Your task to perform on an android device: toggle notifications settings in the gmail app Image 0: 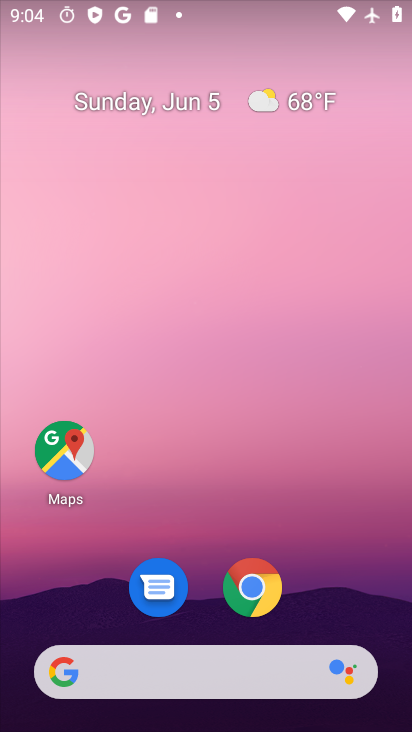
Step 0: drag from (361, 621) to (305, 94)
Your task to perform on an android device: toggle notifications settings in the gmail app Image 1: 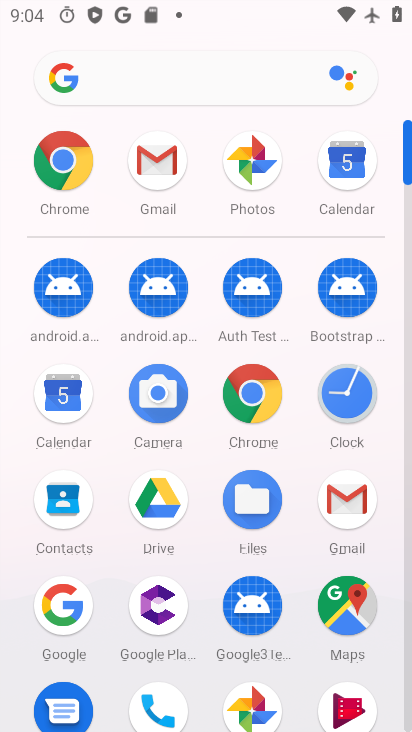
Step 1: click (350, 509)
Your task to perform on an android device: toggle notifications settings in the gmail app Image 2: 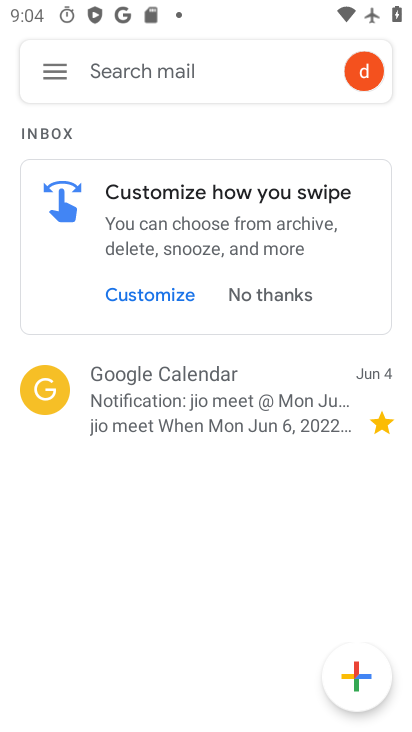
Step 2: click (57, 68)
Your task to perform on an android device: toggle notifications settings in the gmail app Image 3: 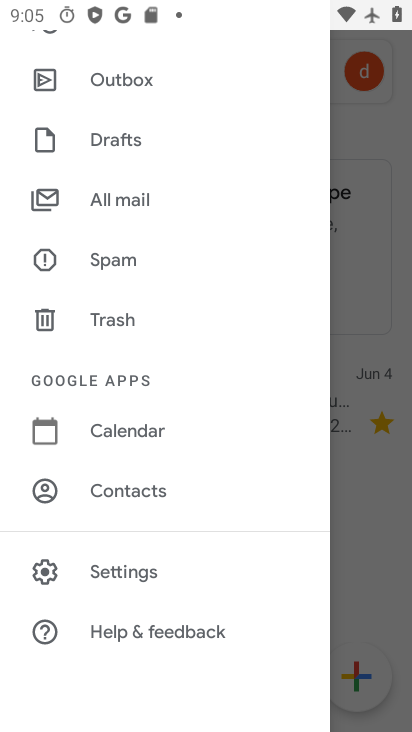
Step 3: click (129, 573)
Your task to perform on an android device: toggle notifications settings in the gmail app Image 4: 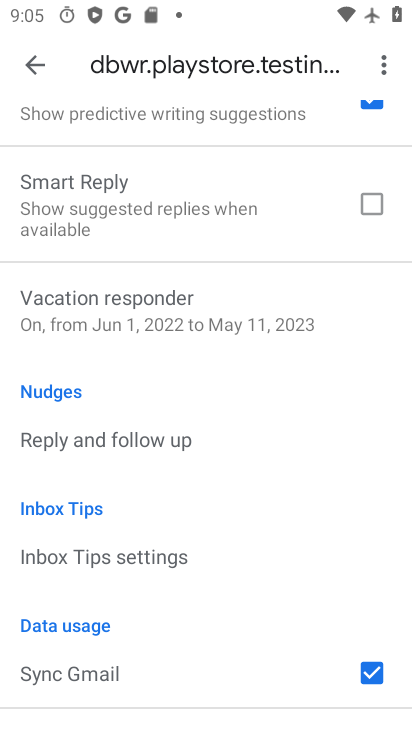
Step 4: drag from (125, 106) to (97, 476)
Your task to perform on an android device: toggle notifications settings in the gmail app Image 5: 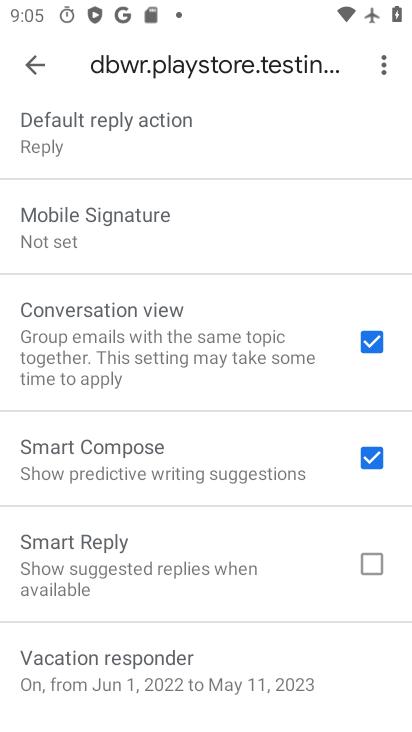
Step 5: drag from (203, 230) to (157, 574)
Your task to perform on an android device: toggle notifications settings in the gmail app Image 6: 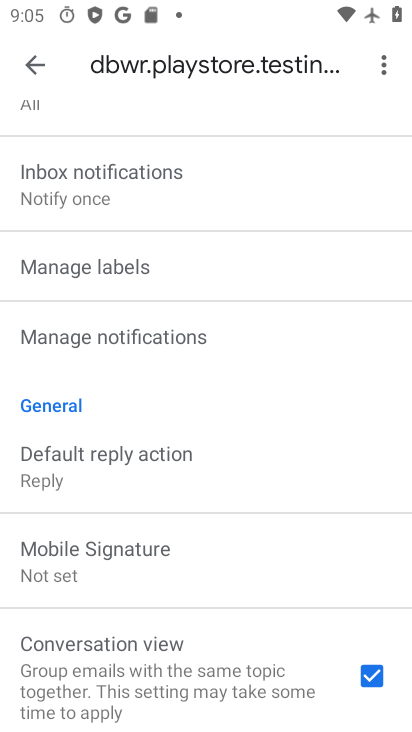
Step 6: drag from (214, 201) to (102, 644)
Your task to perform on an android device: toggle notifications settings in the gmail app Image 7: 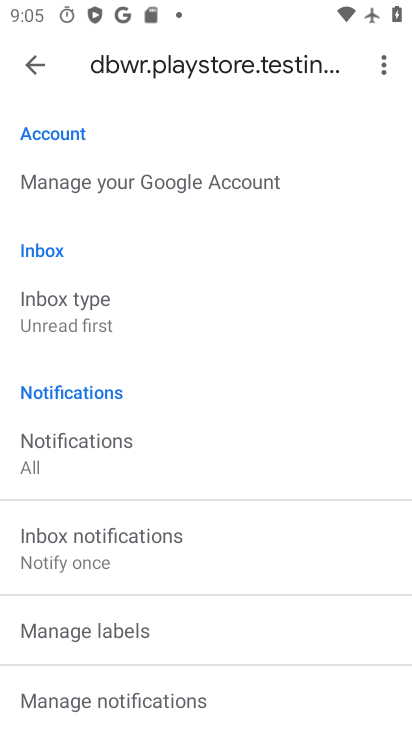
Step 7: click (53, 449)
Your task to perform on an android device: toggle notifications settings in the gmail app Image 8: 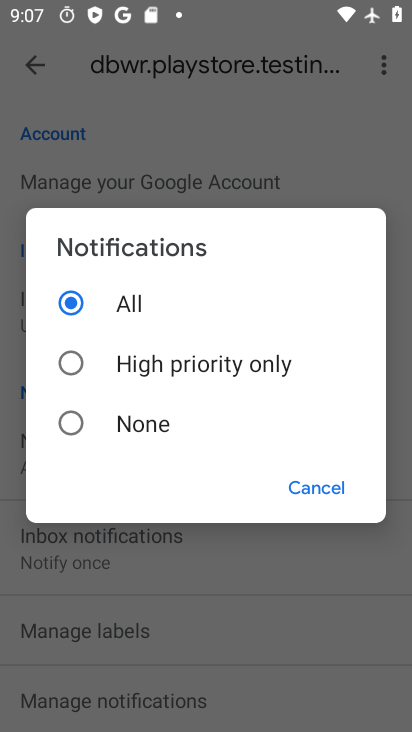
Step 8: click (159, 361)
Your task to perform on an android device: toggle notifications settings in the gmail app Image 9: 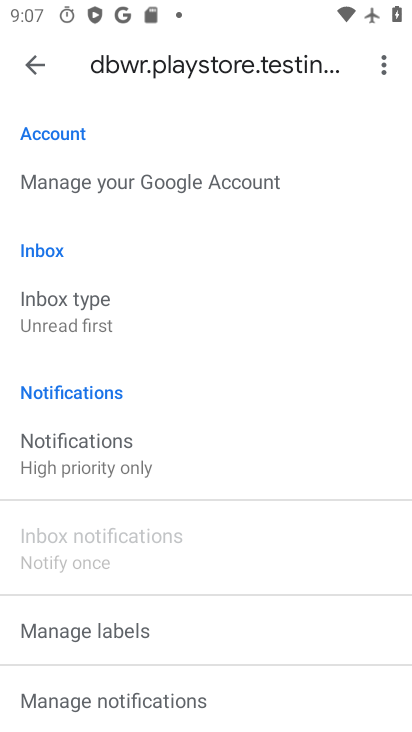
Step 9: task complete